Your task to perform on an android device: Open Chrome and go to the settings page Image 0: 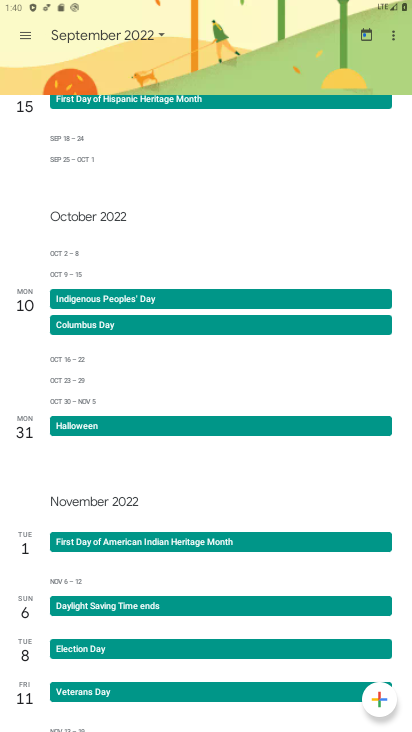
Step 0: press home button
Your task to perform on an android device: Open Chrome and go to the settings page Image 1: 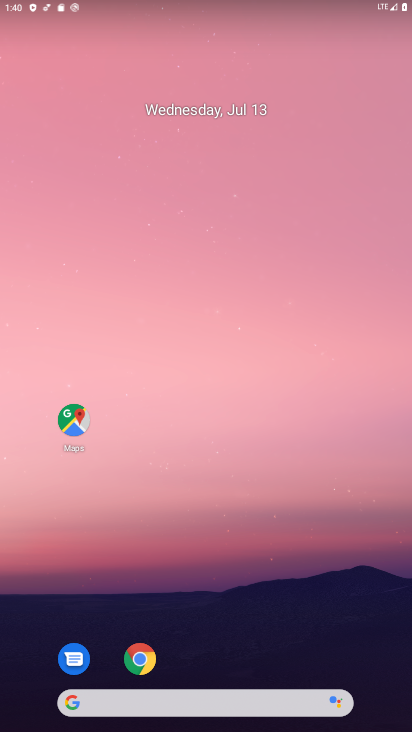
Step 1: click (138, 660)
Your task to perform on an android device: Open Chrome and go to the settings page Image 2: 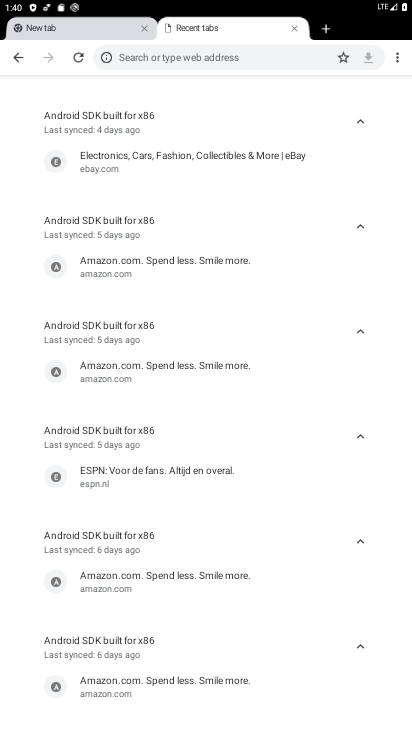
Step 2: click (399, 66)
Your task to perform on an android device: Open Chrome and go to the settings page Image 3: 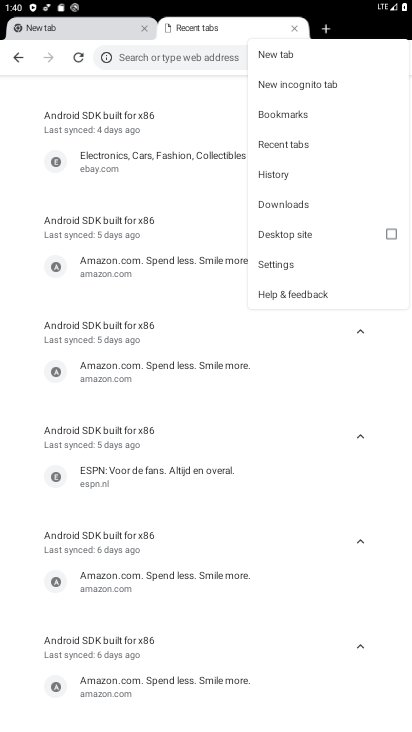
Step 3: click (282, 266)
Your task to perform on an android device: Open Chrome and go to the settings page Image 4: 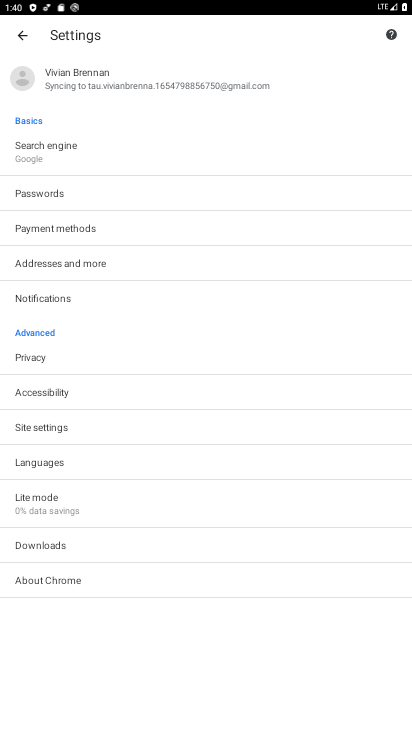
Step 4: task complete